Your task to perform on an android device: turn on priority inbox in the gmail app Image 0: 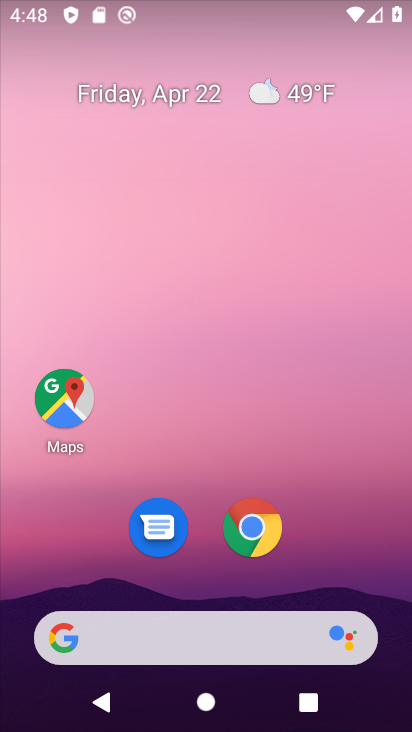
Step 0: drag from (358, 665) to (227, 183)
Your task to perform on an android device: turn on priority inbox in the gmail app Image 1: 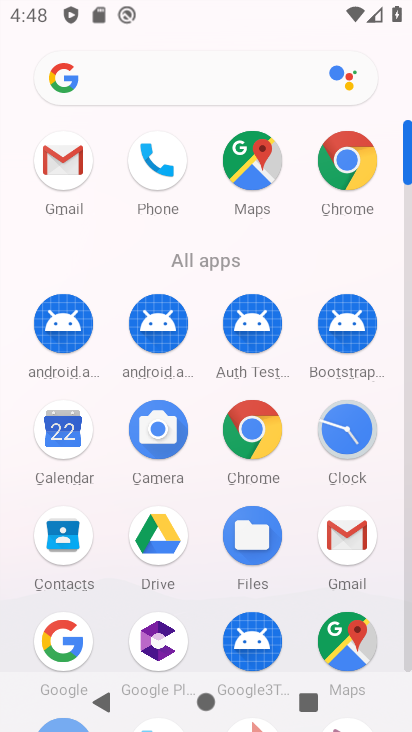
Step 1: click (339, 535)
Your task to perform on an android device: turn on priority inbox in the gmail app Image 2: 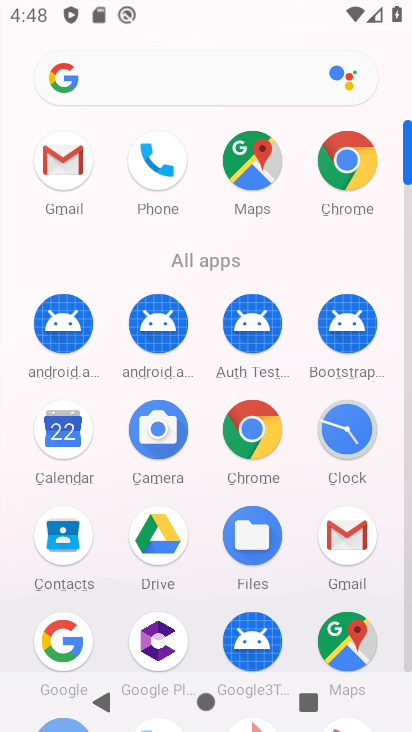
Step 2: click (339, 535)
Your task to perform on an android device: turn on priority inbox in the gmail app Image 3: 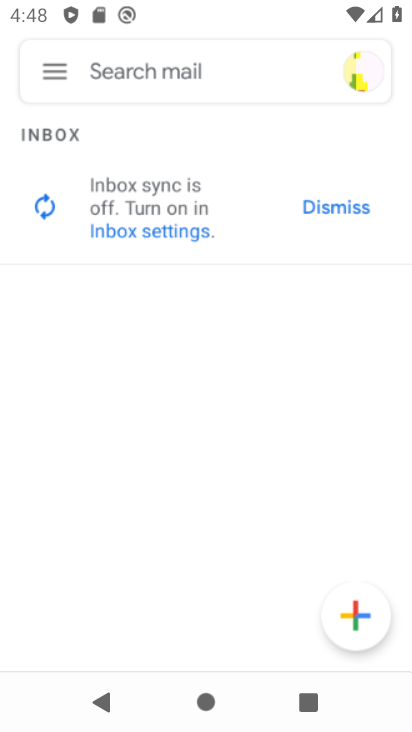
Step 3: click (339, 532)
Your task to perform on an android device: turn on priority inbox in the gmail app Image 4: 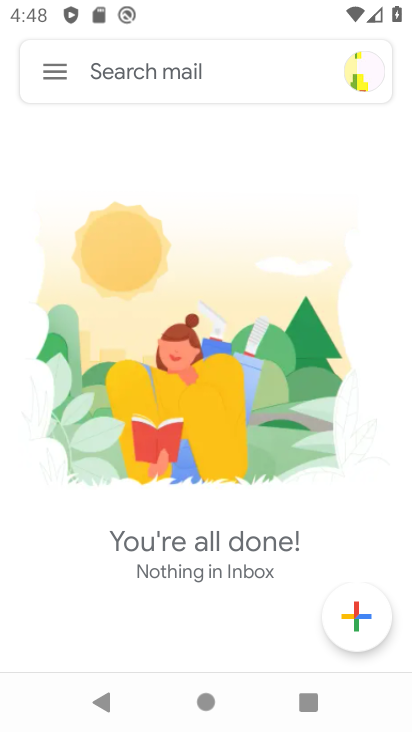
Step 4: click (64, 75)
Your task to perform on an android device: turn on priority inbox in the gmail app Image 5: 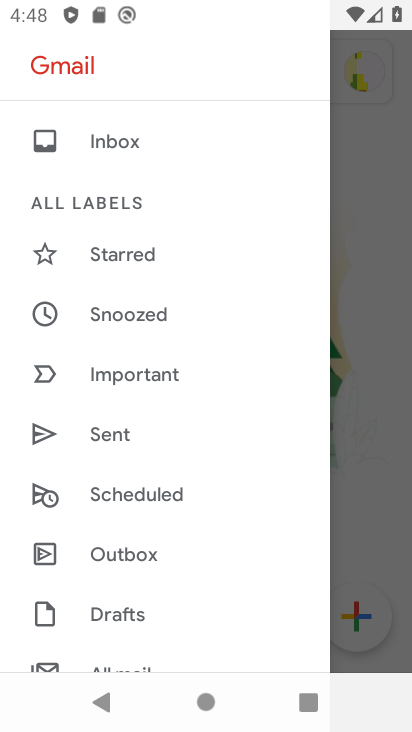
Step 5: drag from (208, 356) to (166, 211)
Your task to perform on an android device: turn on priority inbox in the gmail app Image 6: 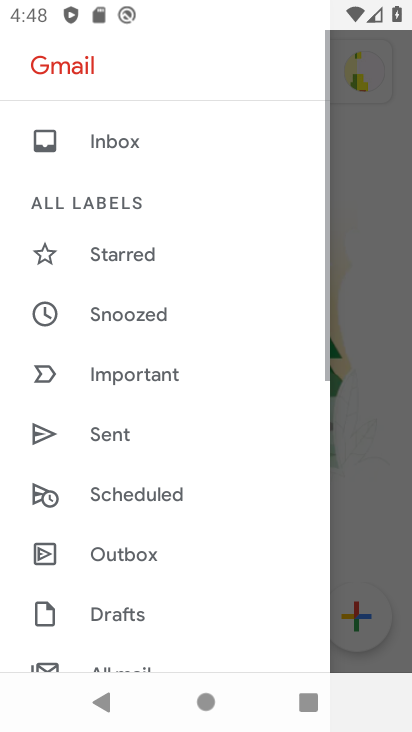
Step 6: drag from (199, 396) to (204, 2)
Your task to perform on an android device: turn on priority inbox in the gmail app Image 7: 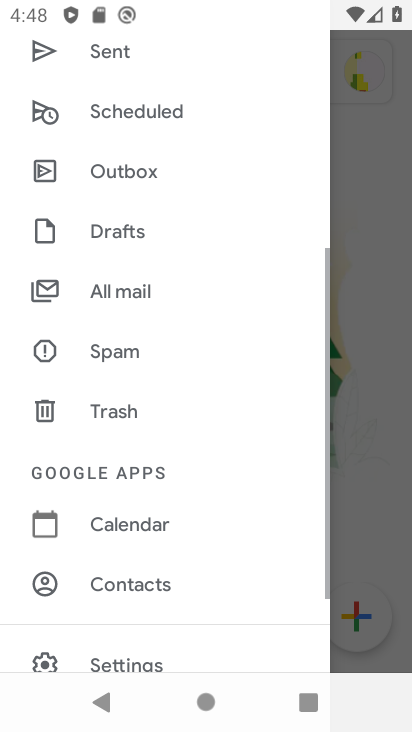
Step 7: drag from (163, 445) to (153, 68)
Your task to perform on an android device: turn on priority inbox in the gmail app Image 8: 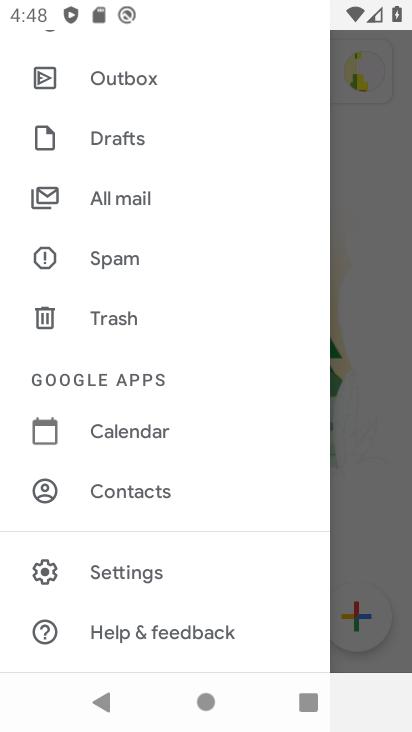
Step 8: click (116, 577)
Your task to perform on an android device: turn on priority inbox in the gmail app Image 9: 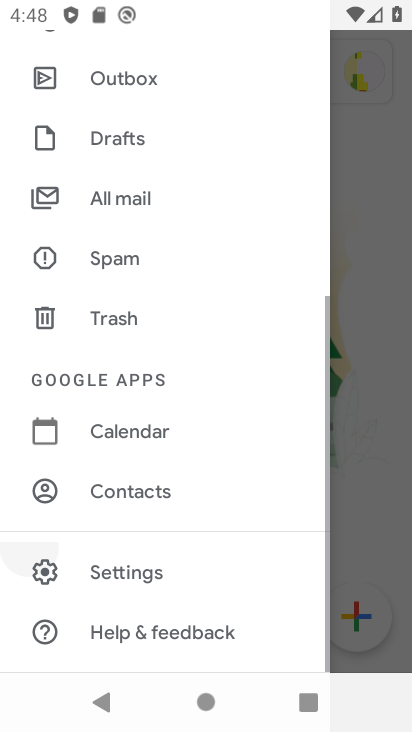
Step 9: click (126, 574)
Your task to perform on an android device: turn on priority inbox in the gmail app Image 10: 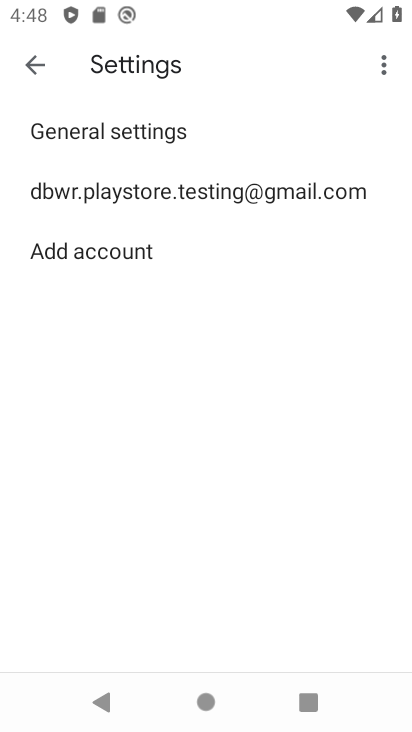
Step 10: click (136, 187)
Your task to perform on an android device: turn on priority inbox in the gmail app Image 11: 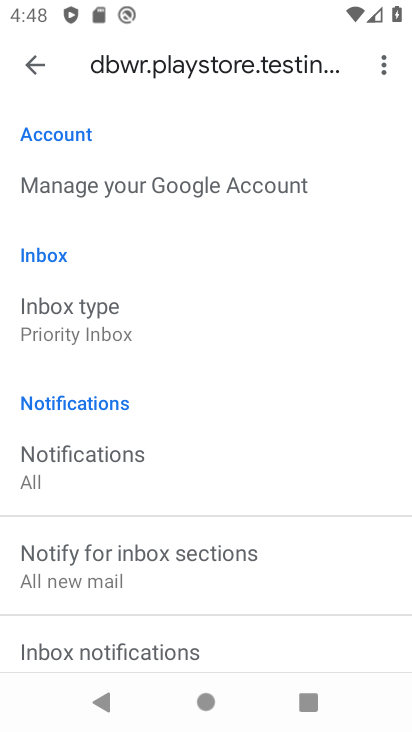
Step 11: click (98, 317)
Your task to perform on an android device: turn on priority inbox in the gmail app Image 12: 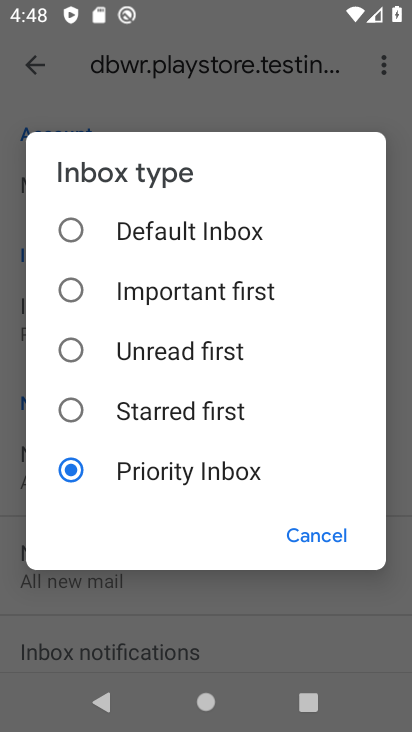
Step 12: click (327, 534)
Your task to perform on an android device: turn on priority inbox in the gmail app Image 13: 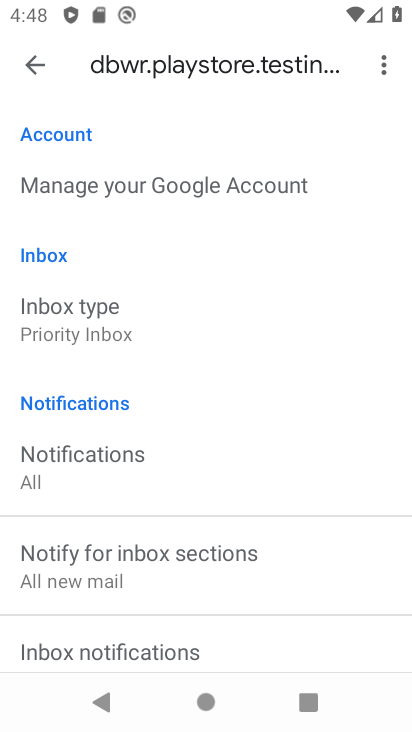
Step 13: task complete